Your task to perform on an android device: find photos in the google photos app Image 0: 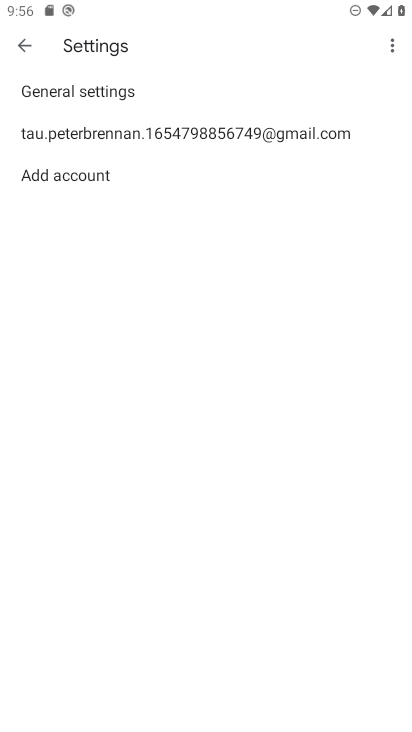
Step 0: press home button
Your task to perform on an android device: find photos in the google photos app Image 1: 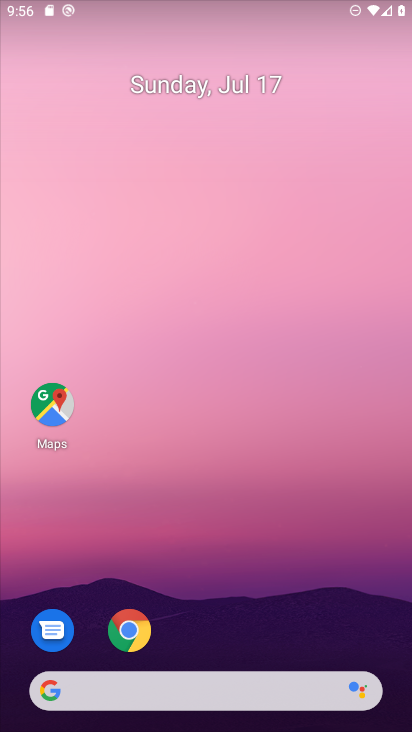
Step 1: drag from (194, 660) to (169, 203)
Your task to perform on an android device: find photos in the google photos app Image 2: 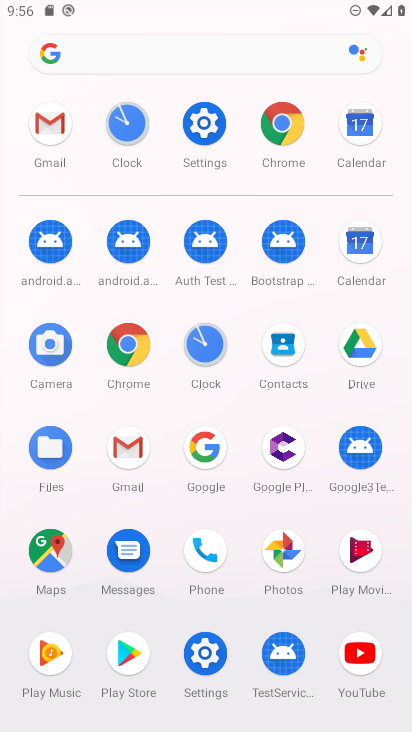
Step 2: click (268, 541)
Your task to perform on an android device: find photos in the google photos app Image 3: 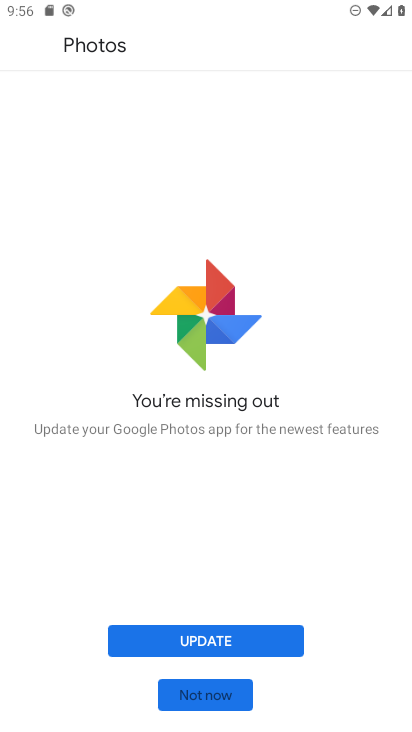
Step 3: click (212, 680)
Your task to perform on an android device: find photos in the google photos app Image 4: 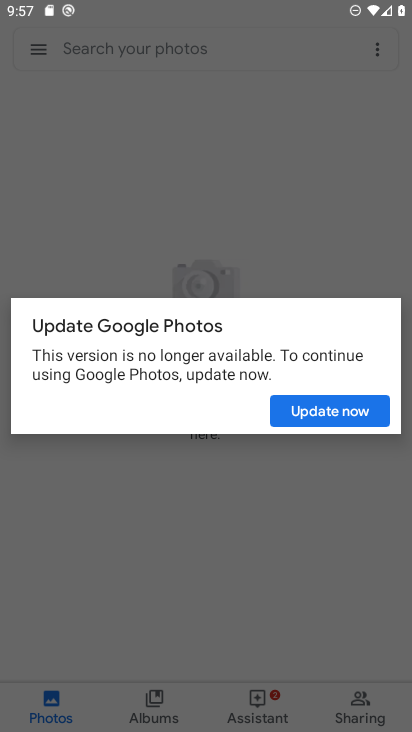
Step 4: task complete